Your task to perform on an android device: Open Reddit.com Image 0: 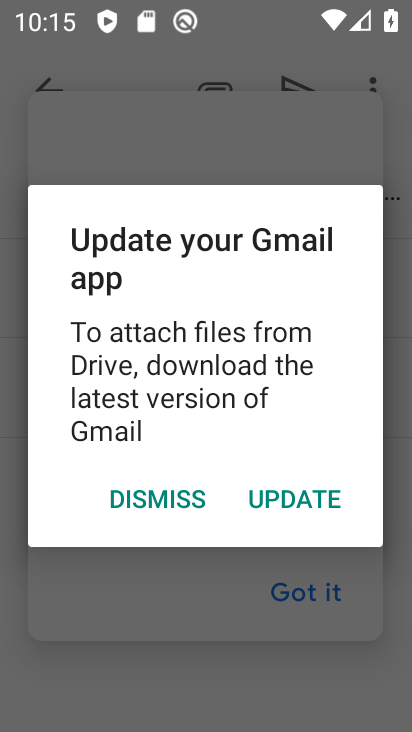
Step 0: press home button
Your task to perform on an android device: Open Reddit.com Image 1: 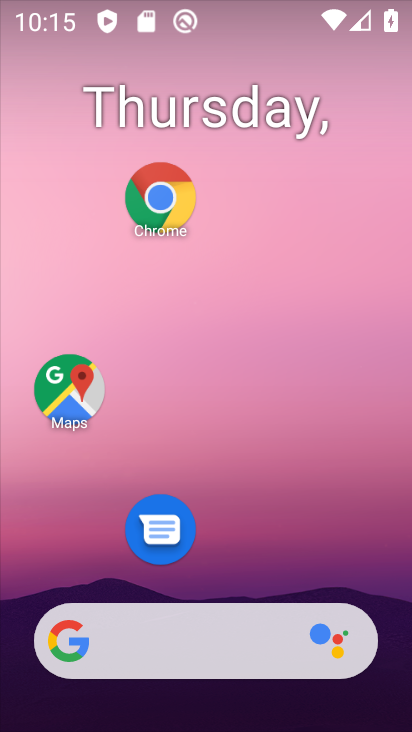
Step 1: click (223, 625)
Your task to perform on an android device: Open Reddit.com Image 2: 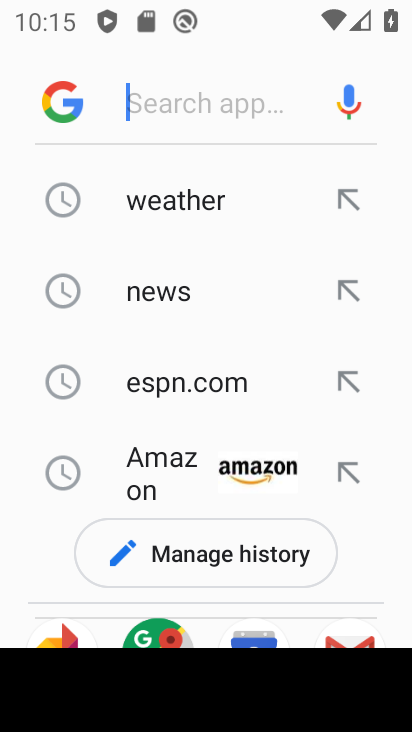
Step 2: type "reddit.com"
Your task to perform on an android device: Open Reddit.com Image 3: 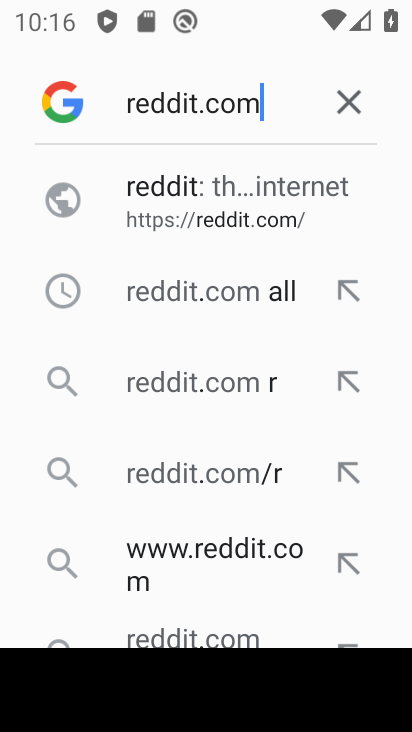
Step 3: click (185, 183)
Your task to perform on an android device: Open Reddit.com Image 4: 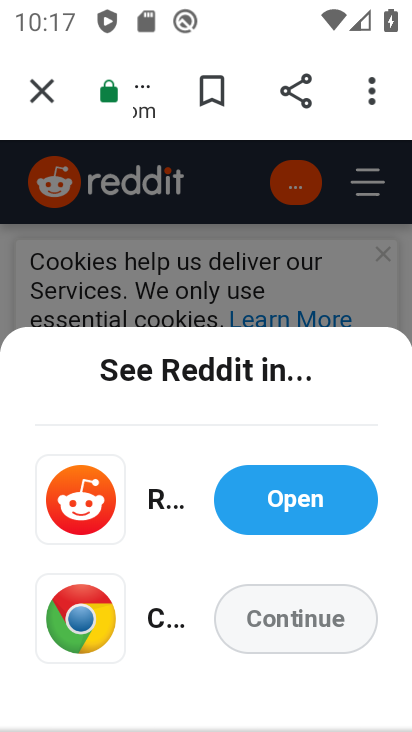
Step 4: click (290, 626)
Your task to perform on an android device: Open Reddit.com Image 5: 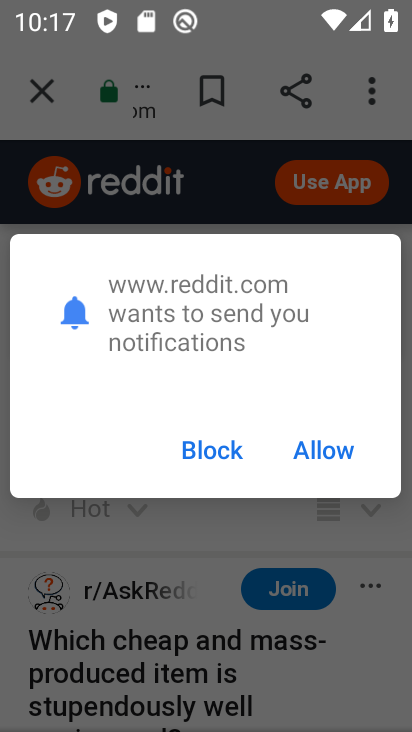
Step 5: click (312, 450)
Your task to perform on an android device: Open Reddit.com Image 6: 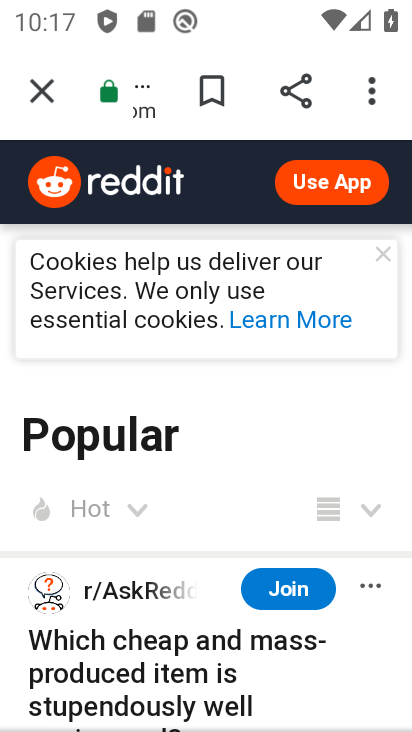
Step 6: task complete